Your task to perform on an android device: What is the news today? Image 0: 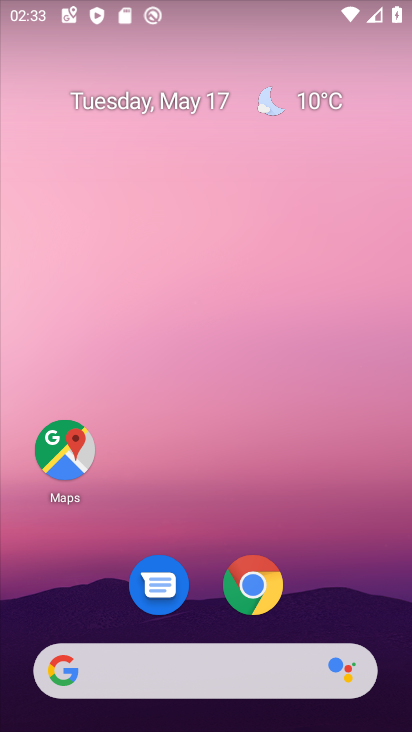
Step 0: click (220, 670)
Your task to perform on an android device: What is the news today? Image 1: 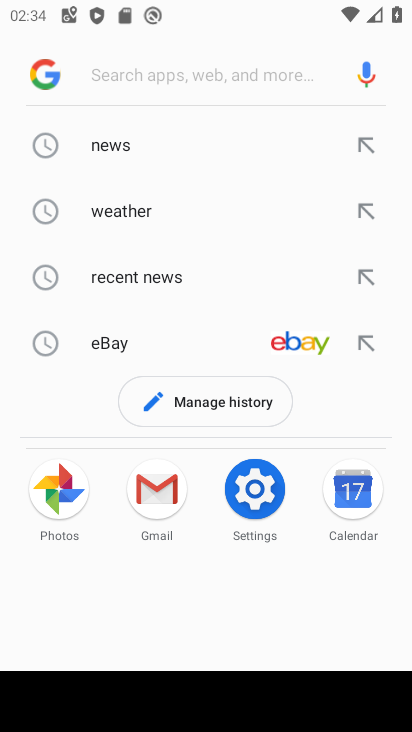
Step 1: click (108, 139)
Your task to perform on an android device: What is the news today? Image 2: 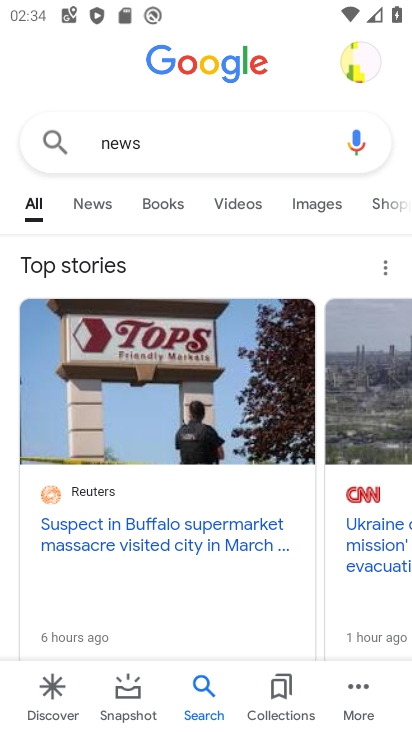
Step 2: click (99, 199)
Your task to perform on an android device: What is the news today? Image 3: 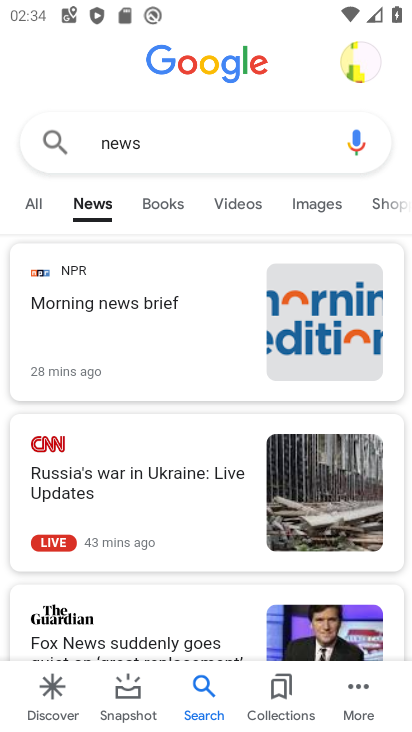
Step 3: task complete